Your task to perform on an android device: Open eBay Image 0: 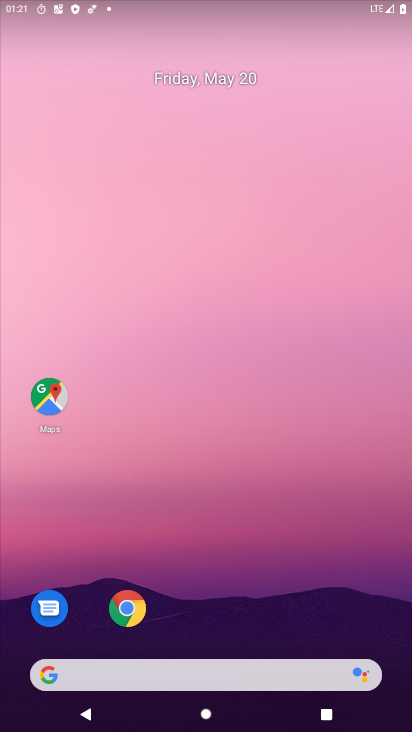
Step 0: drag from (329, 608) to (273, 127)
Your task to perform on an android device: Open eBay Image 1: 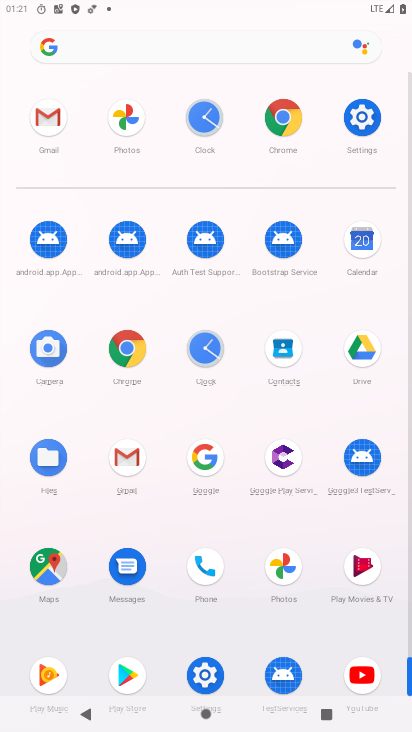
Step 1: click (142, 344)
Your task to perform on an android device: Open eBay Image 2: 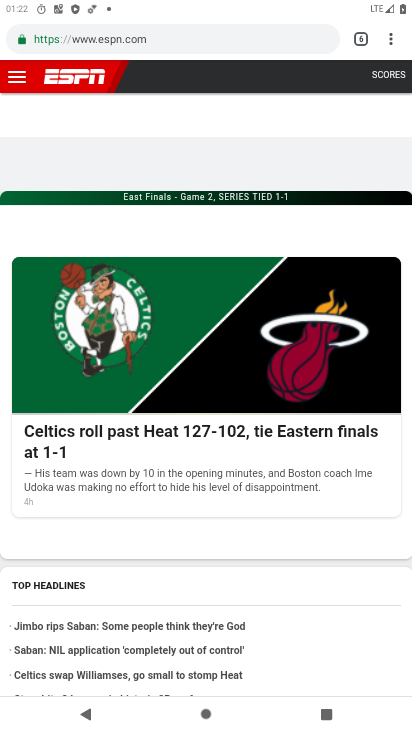
Step 2: click (177, 32)
Your task to perform on an android device: Open eBay Image 3: 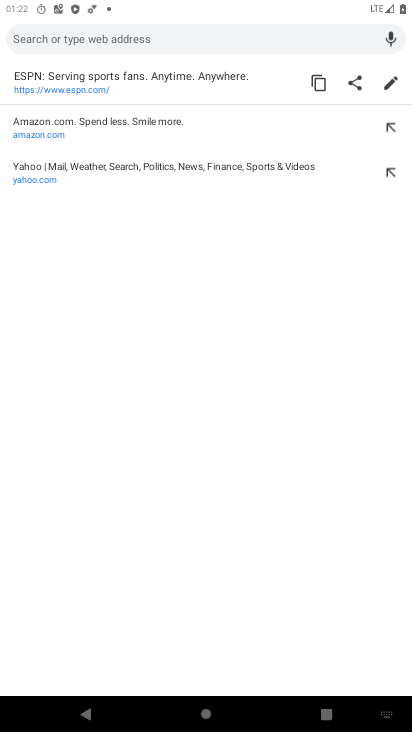
Step 3: type "ebay"
Your task to perform on an android device: Open eBay Image 4: 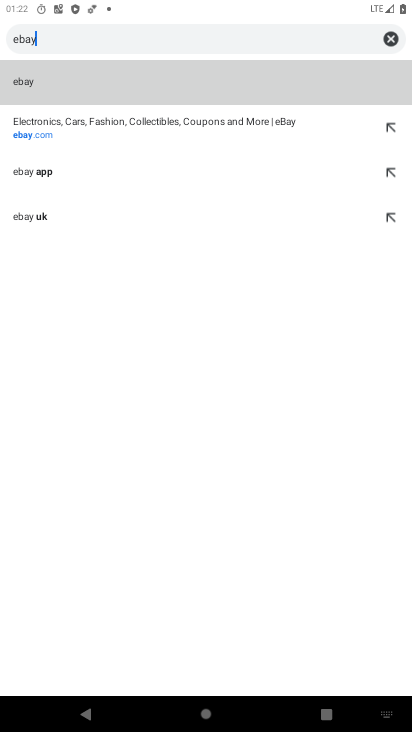
Step 4: click (85, 80)
Your task to perform on an android device: Open eBay Image 5: 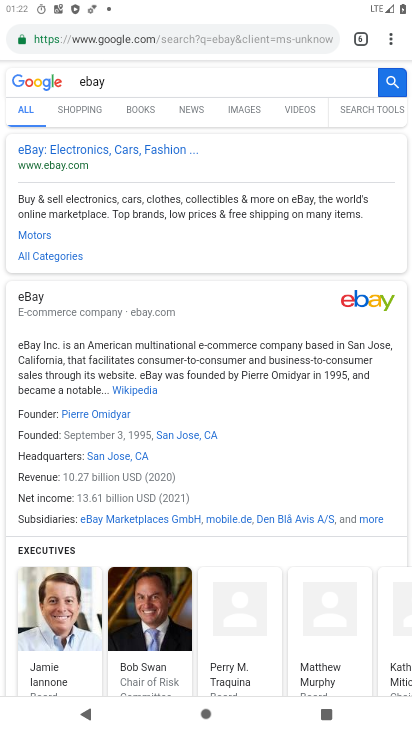
Step 5: click (171, 149)
Your task to perform on an android device: Open eBay Image 6: 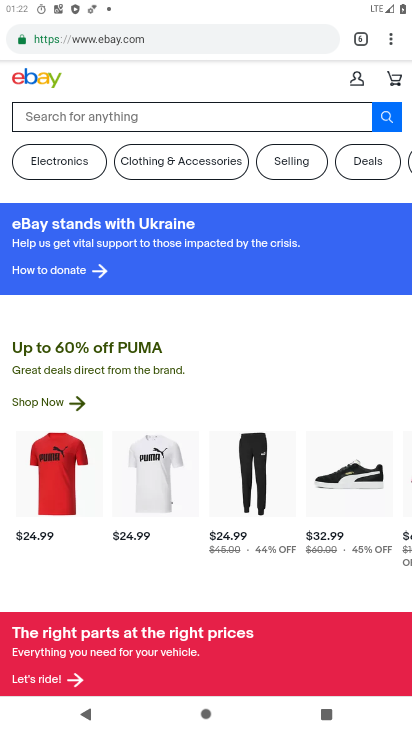
Step 6: task complete